Your task to perform on an android device: Open Google Maps Image 0: 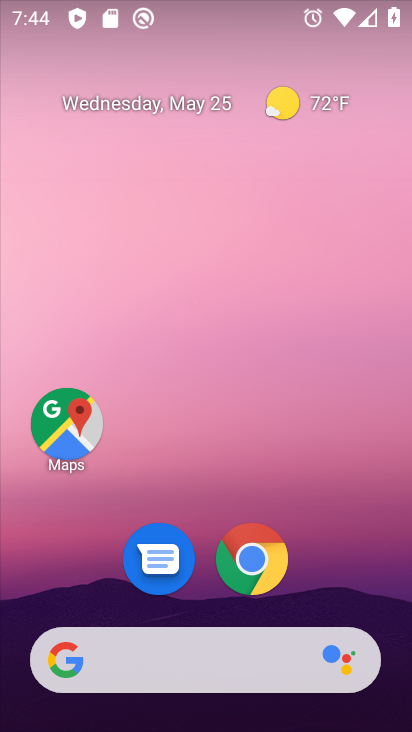
Step 0: drag from (217, 670) to (410, 100)
Your task to perform on an android device: Open Google Maps Image 1: 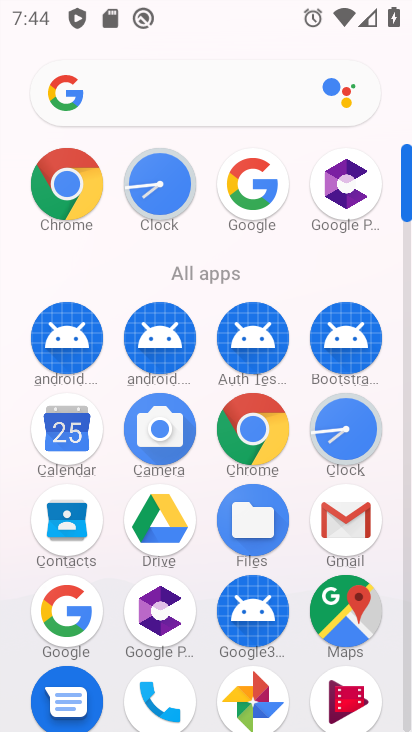
Step 1: click (340, 625)
Your task to perform on an android device: Open Google Maps Image 2: 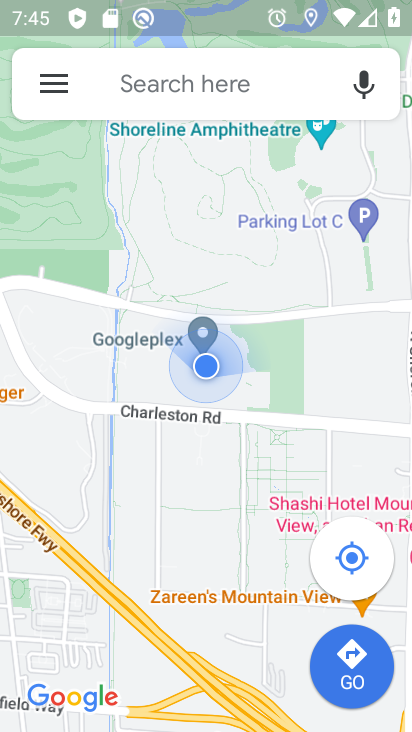
Step 2: task complete